Your task to perform on an android device: toggle show notifications on the lock screen Image 0: 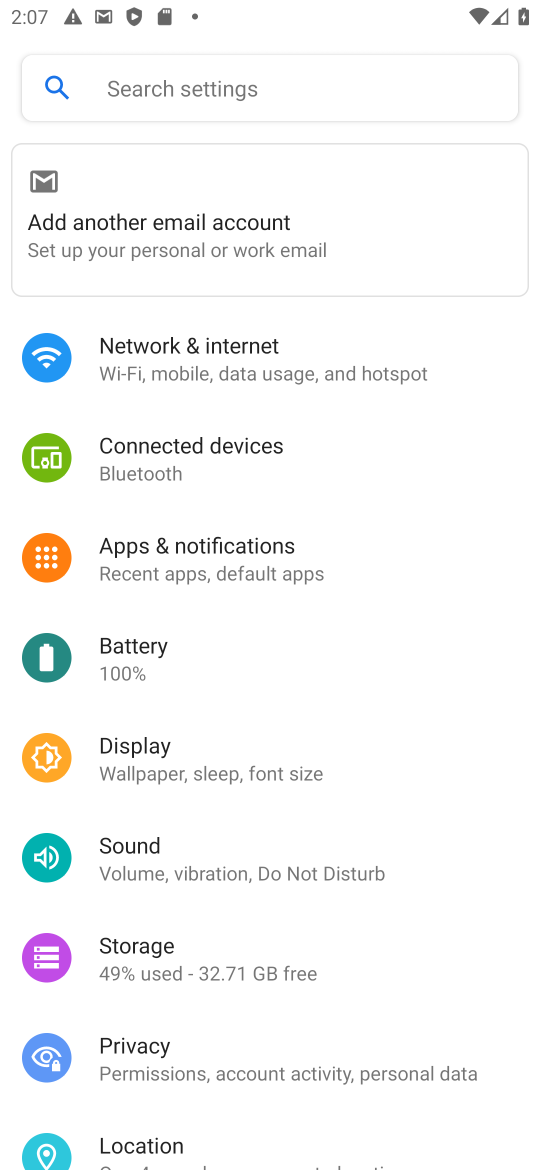
Step 0: click (197, 585)
Your task to perform on an android device: toggle show notifications on the lock screen Image 1: 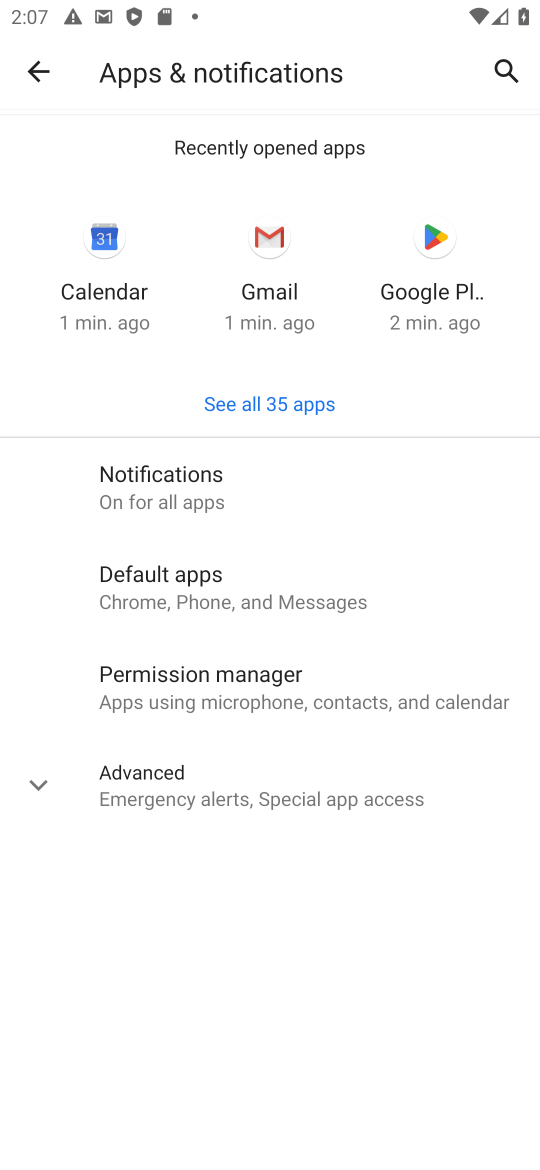
Step 1: click (164, 484)
Your task to perform on an android device: toggle show notifications on the lock screen Image 2: 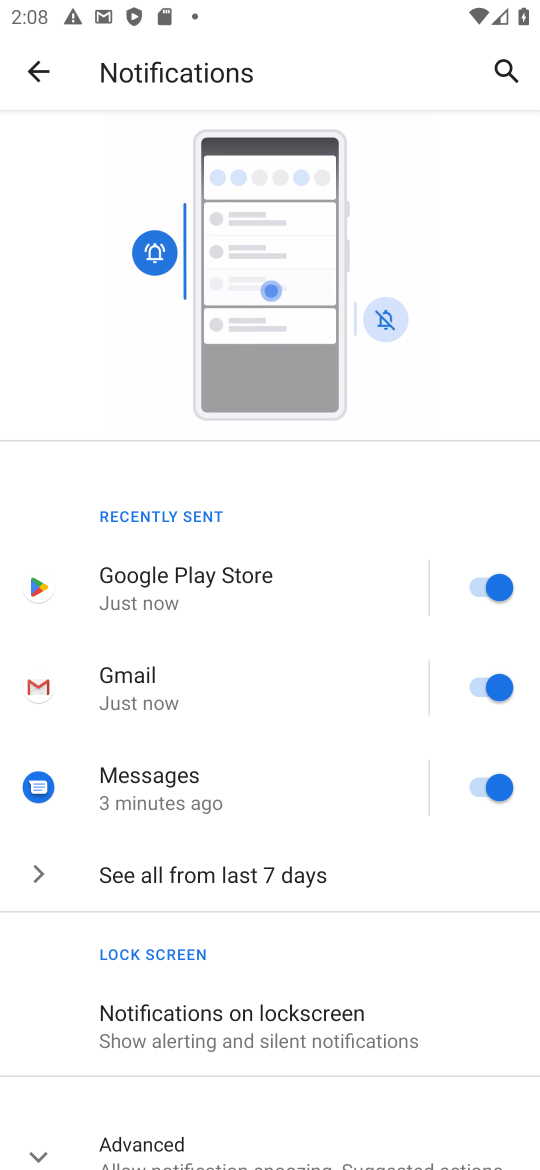
Step 2: click (270, 1024)
Your task to perform on an android device: toggle show notifications on the lock screen Image 3: 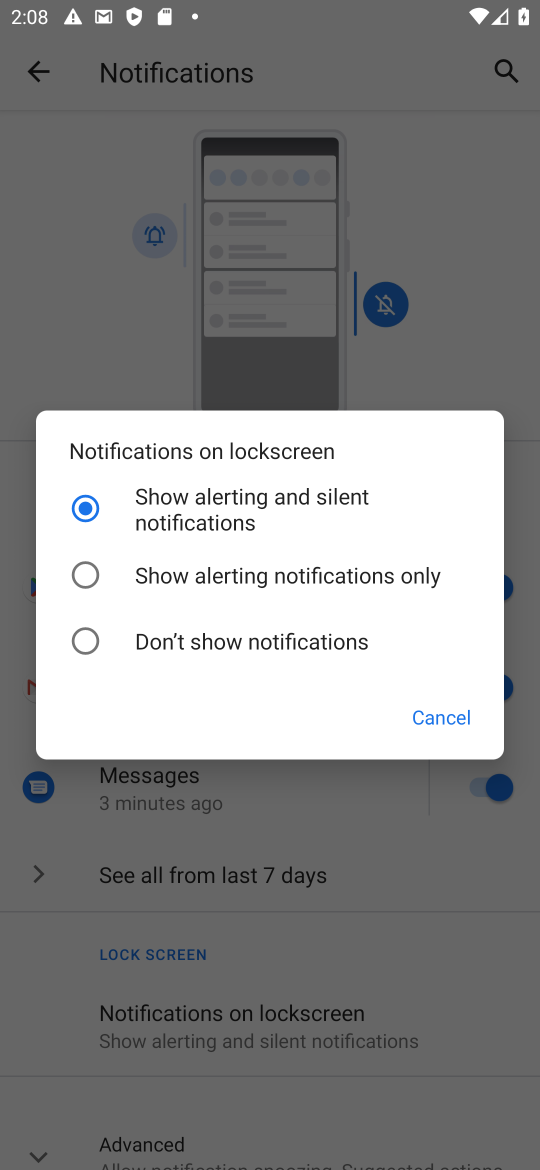
Step 3: click (210, 515)
Your task to perform on an android device: toggle show notifications on the lock screen Image 4: 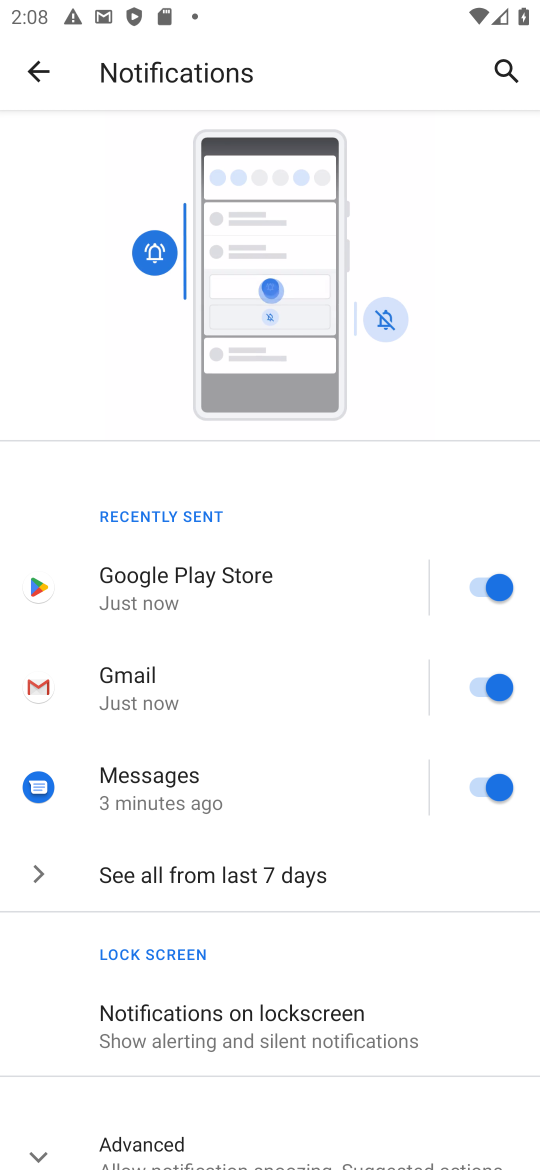
Step 4: task complete